Your task to perform on an android device: What's on my calendar today? Image 0: 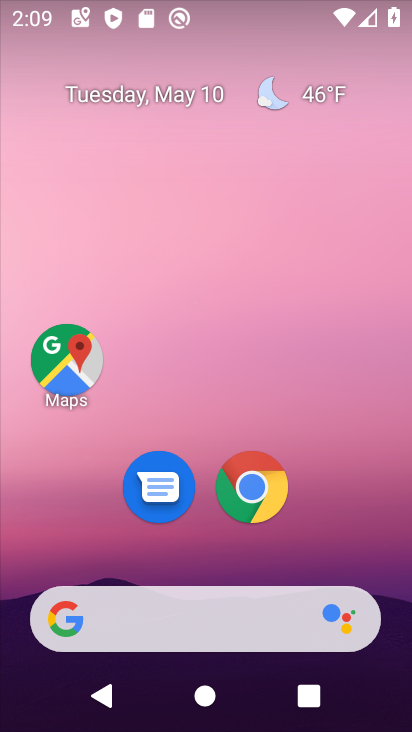
Step 0: drag from (339, 540) to (292, 147)
Your task to perform on an android device: What's on my calendar today? Image 1: 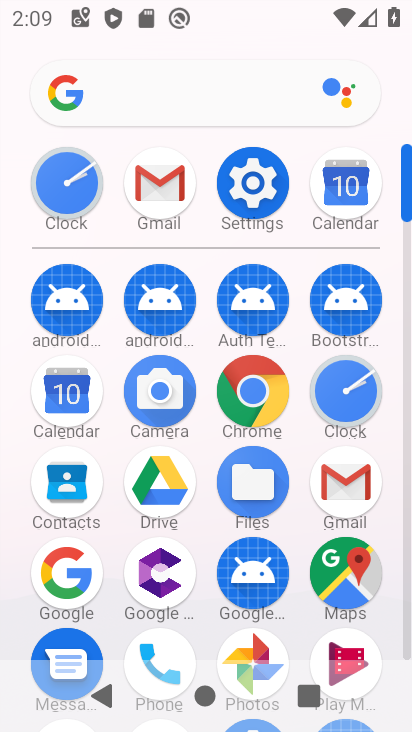
Step 1: click (69, 397)
Your task to perform on an android device: What's on my calendar today? Image 2: 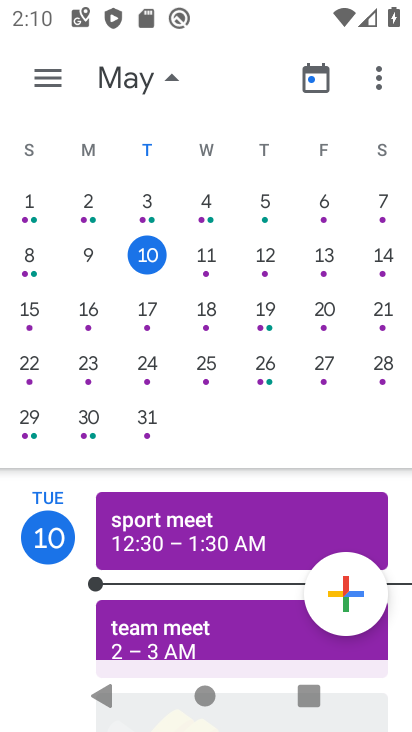
Step 2: task complete